Your task to perform on an android device: Open calendar and show me the third week of next month Image 0: 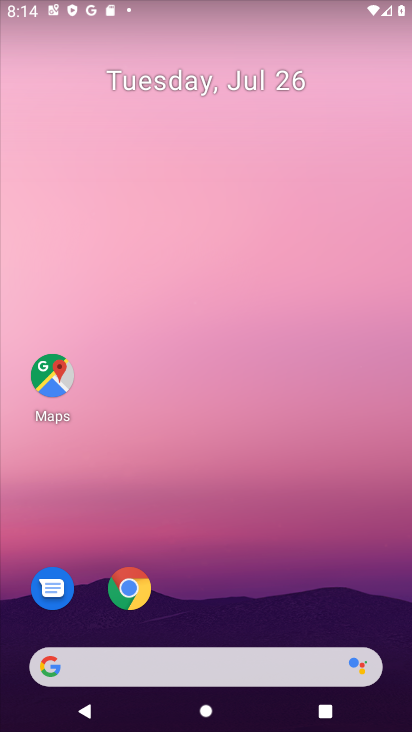
Step 0: click (243, 29)
Your task to perform on an android device: Open calendar and show me the third week of next month Image 1: 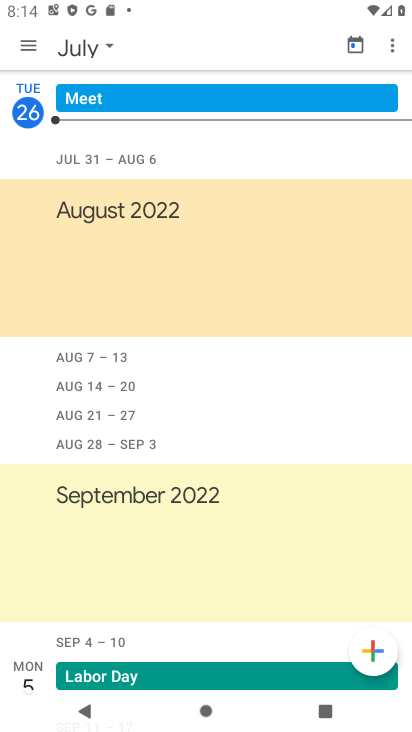
Step 1: press home button
Your task to perform on an android device: Open calendar and show me the third week of next month Image 2: 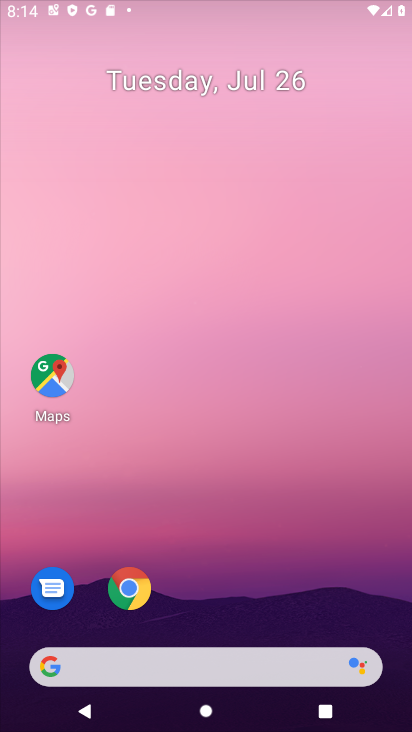
Step 2: drag from (237, 576) to (225, 6)
Your task to perform on an android device: Open calendar and show me the third week of next month Image 3: 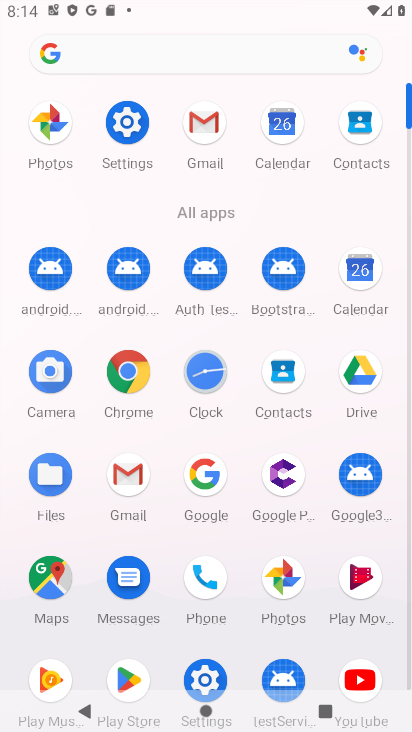
Step 3: click (356, 280)
Your task to perform on an android device: Open calendar and show me the third week of next month Image 4: 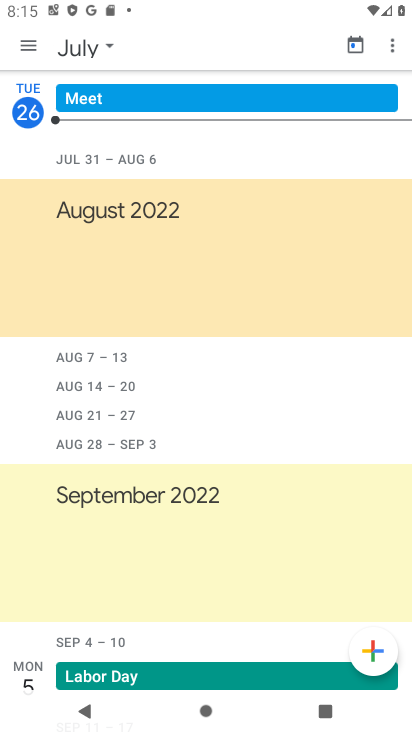
Step 4: click (22, 42)
Your task to perform on an android device: Open calendar and show me the third week of next month Image 5: 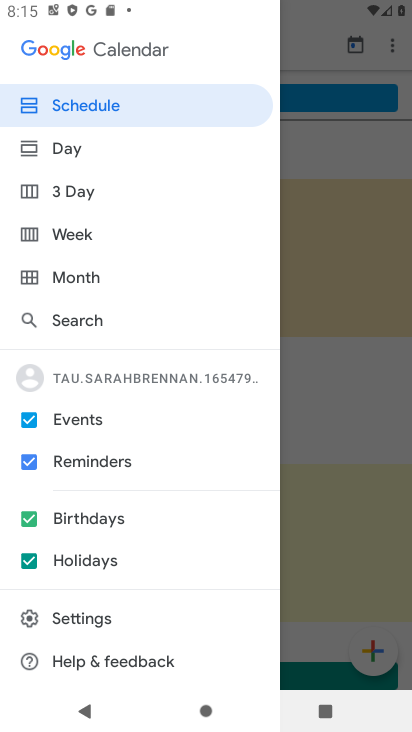
Step 5: click (82, 238)
Your task to perform on an android device: Open calendar and show me the third week of next month Image 6: 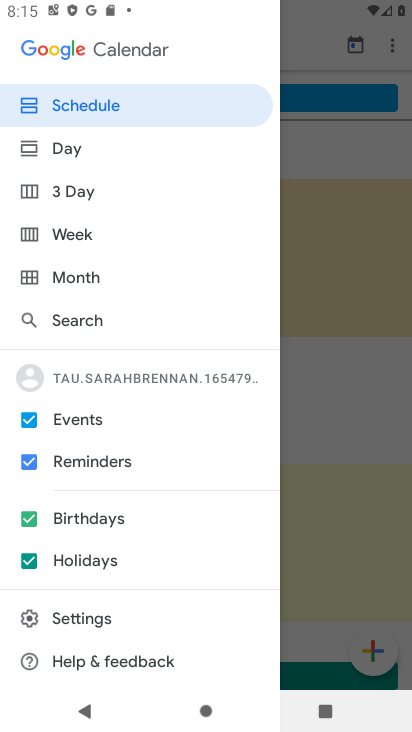
Step 6: click (74, 231)
Your task to perform on an android device: Open calendar and show me the third week of next month Image 7: 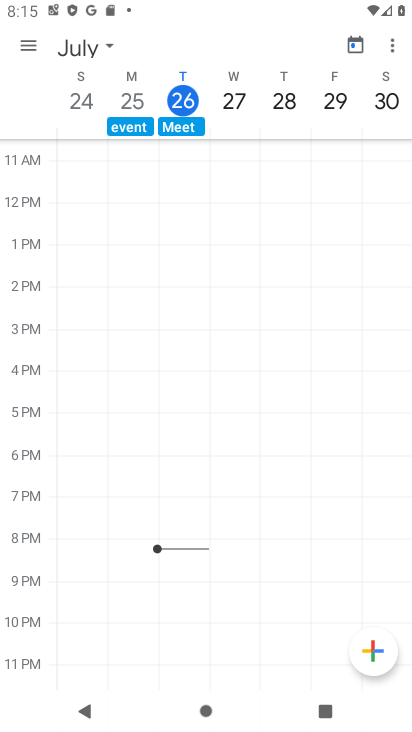
Step 7: task complete